Your task to perform on an android device: open wifi settings Image 0: 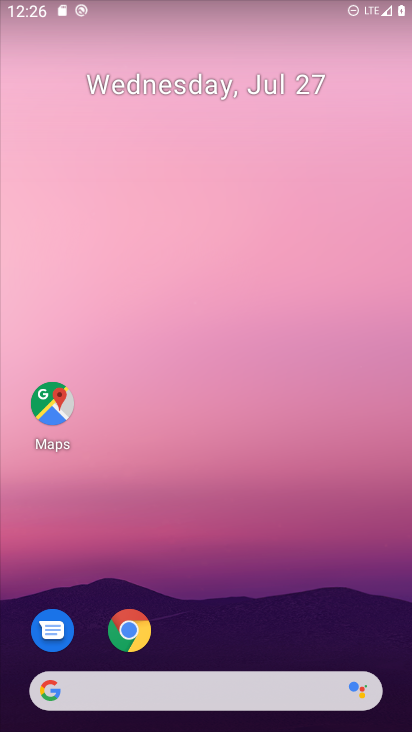
Step 0: drag from (380, 635) to (338, 174)
Your task to perform on an android device: open wifi settings Image 1: 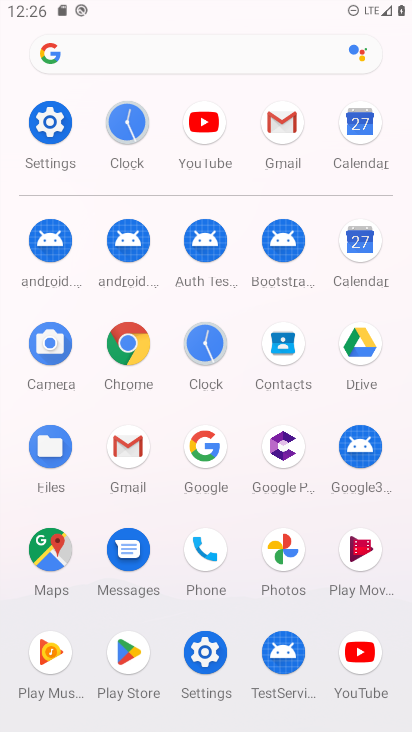
Step 1: click (203, 654)
Your task to perform on an android device: open wifi settings Image 2: 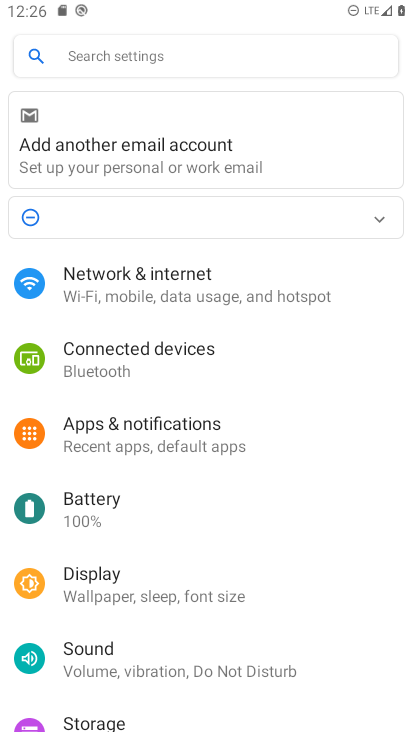
Step 2: click (125, 274)
Your task to perform on an android device: open wifi settings Image 3: 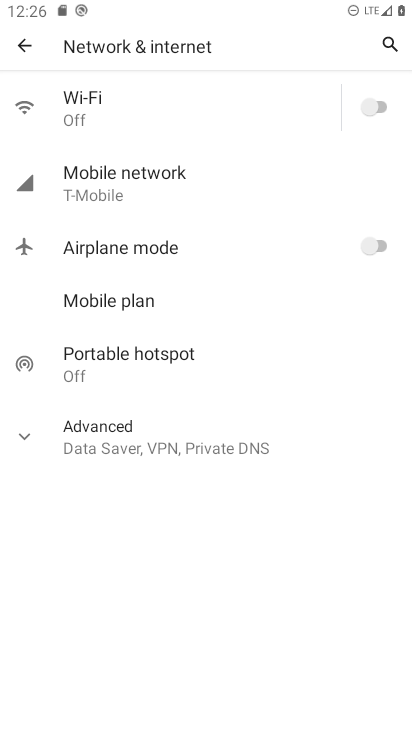
Step 3: click (82, 98)
Your task to perform on an android device: open wifi settings Image 4: 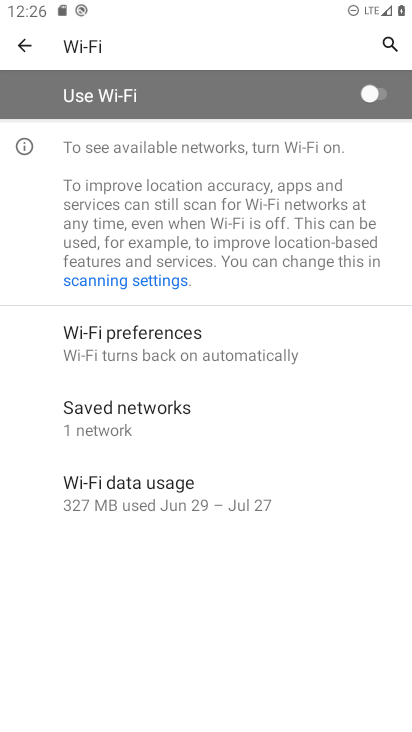
Step 4: task complete